Your task to perform on an android device: Open Chrome and go to the settings page Image 0: 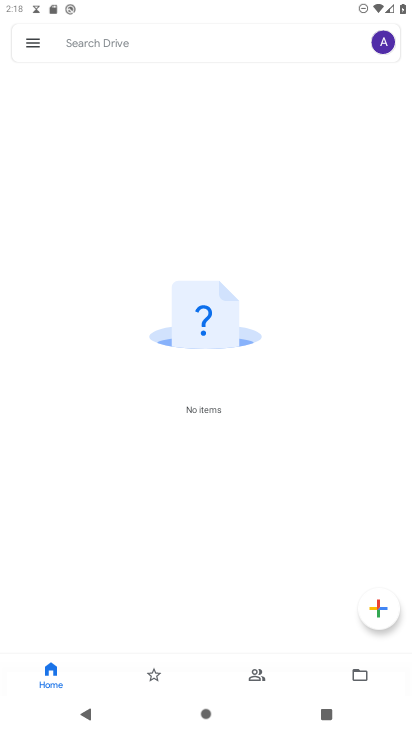
Step 0: press home button
Your task to perform on an android device: Open Chrome and go to the settings page Image 1: 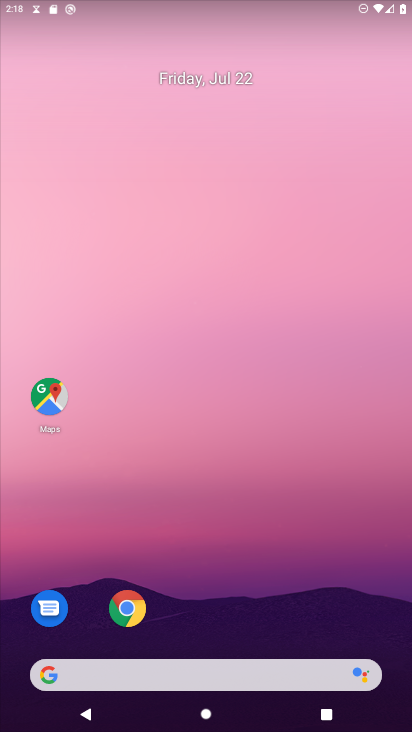
Step 1: click (130, 618)
Your task to perform on an android device: Open Chrome and go to the settings page Image 2: 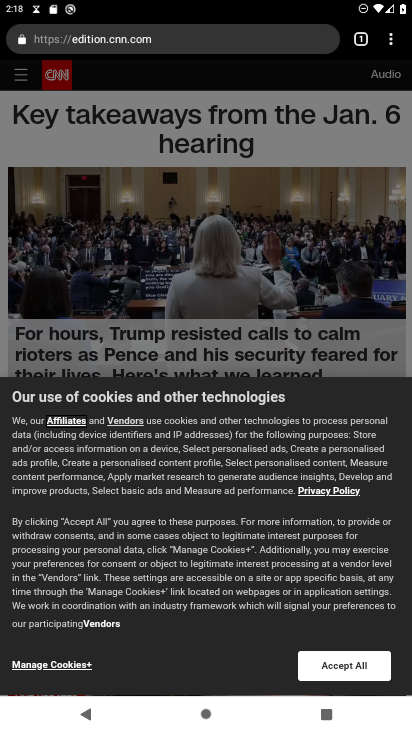
Step 2: click (393, 36)
Your task to perform on an android device: Open Chrome and go to the settings page Image 3: 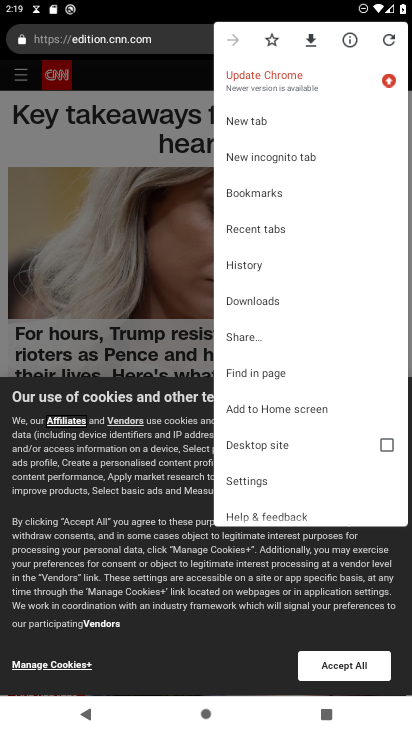
Step 3: click (242, 489)
Your task to perform on an android device: Open Chrome and go to the settings page Image 4: 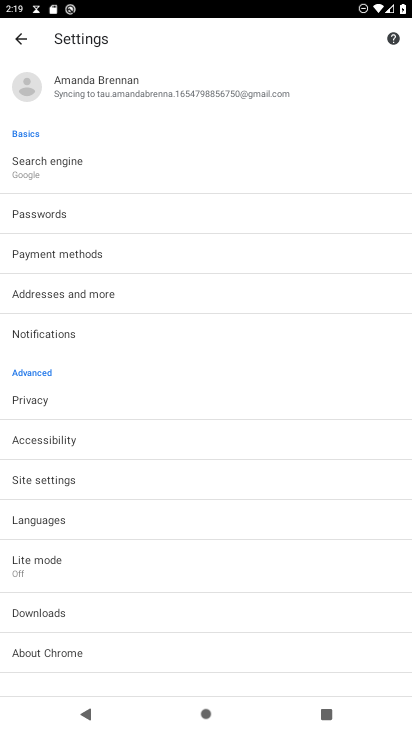
Step 4: task complete